Your task to perform on an android device: Open notification settings Image 0: 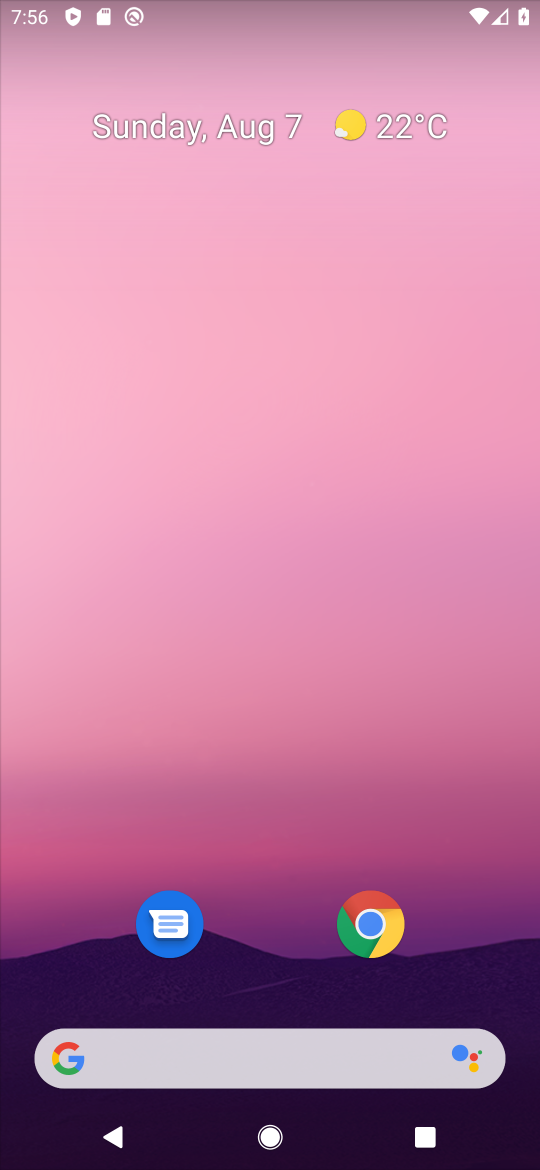
Step 0: drag from (277, 857) to (296, 4)
Your task to perform on an android device: Open notification settings Image 1: 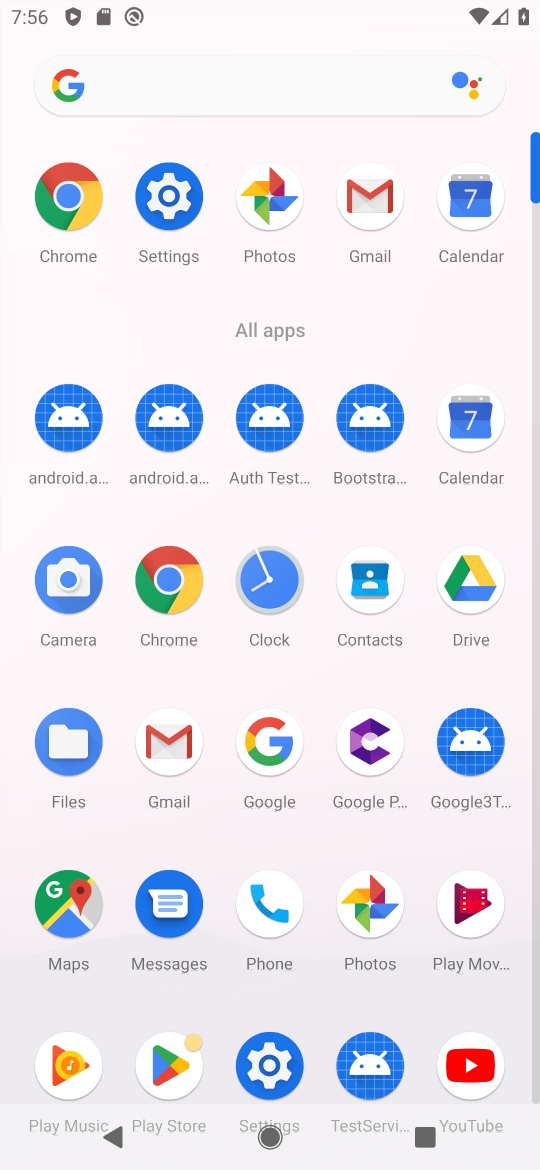
Step 1: click (175, 192)
Your task to perform on an android device: Open notification settings Image 2: 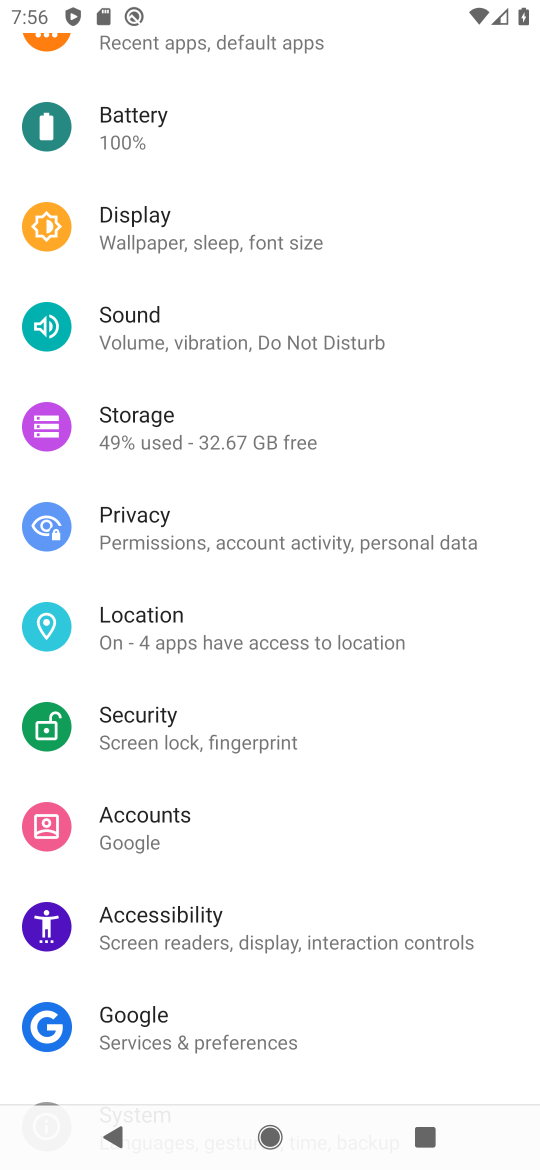
Step 2: drag from (300, 62) to (330, 954)
Your task to perform on an android device: Open notification settings Image 3: 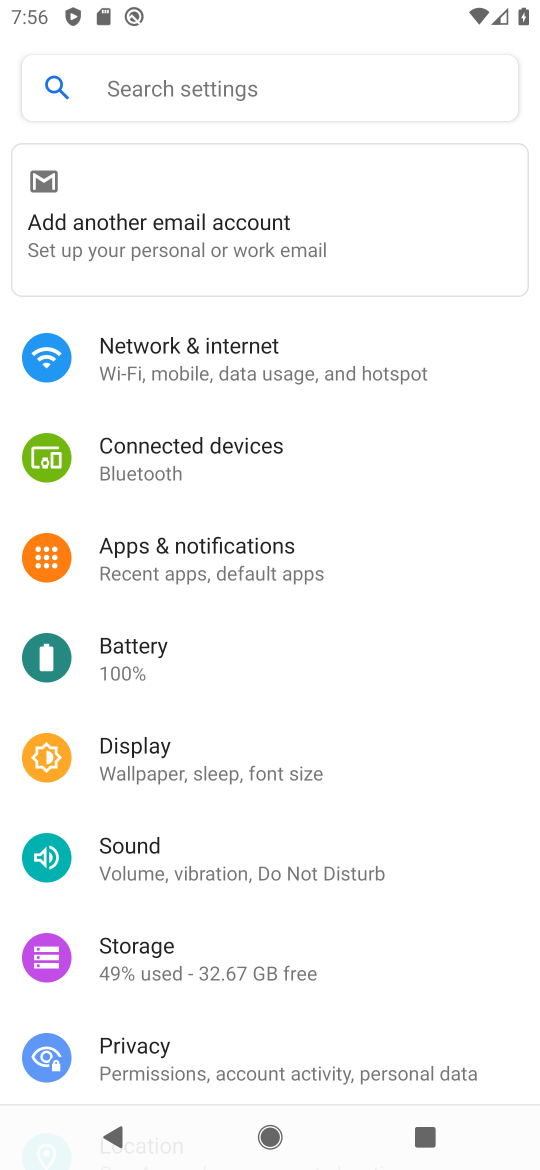
Step 3: click (302, 549)
Your task to perform on an android device: Open notification settings Image 4: 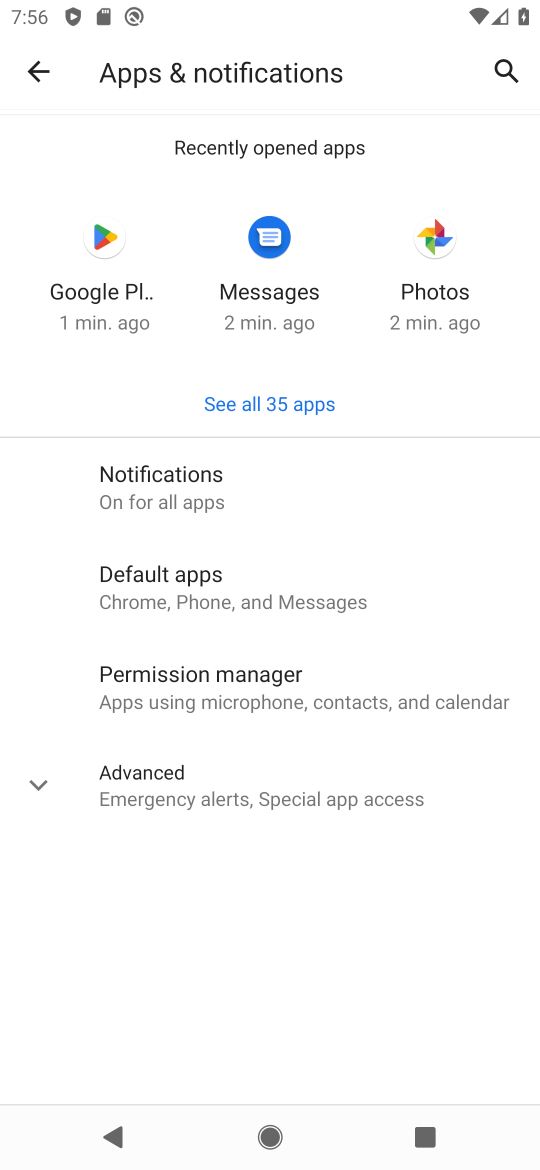
Step 4: click (208, 474)
Your task to perform on an android device: Open notification settings Image 5: 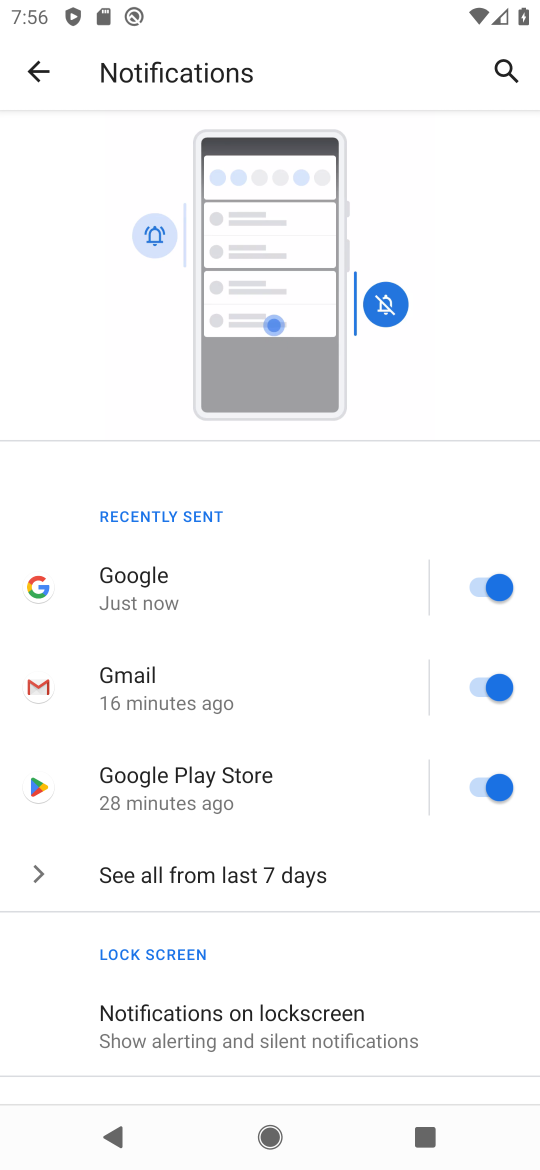
Step 5: task complete